Your task to perform on an android device: turn off wifi Image 0: 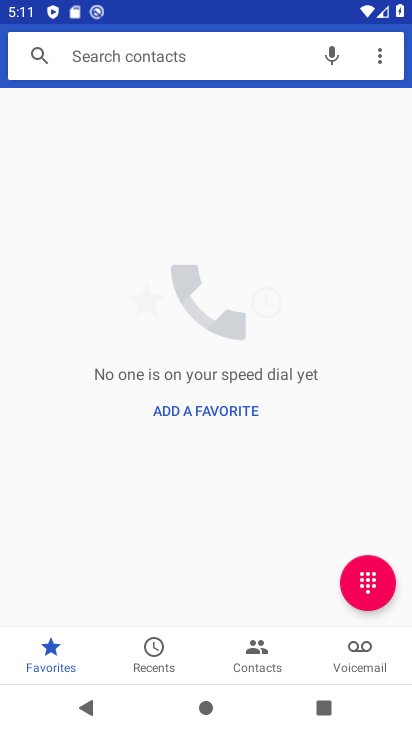
Step 0: press home button
Your task to perform on an android device: turn off wifi Image 1: 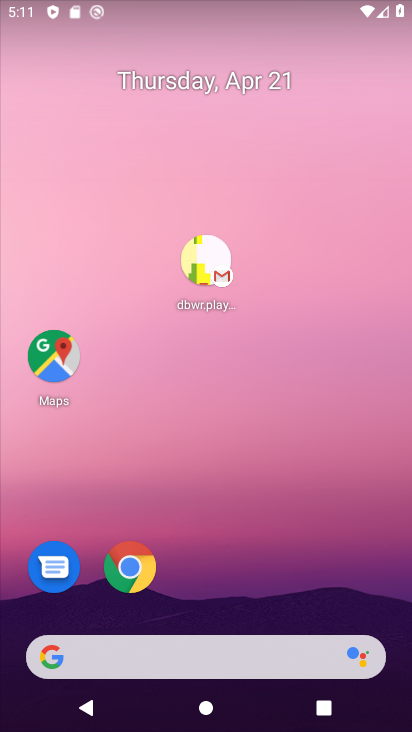
Step 1: drag from (222, 582) to (256, 1)
Your task to perform on an android device: turn off wifi Image 2: 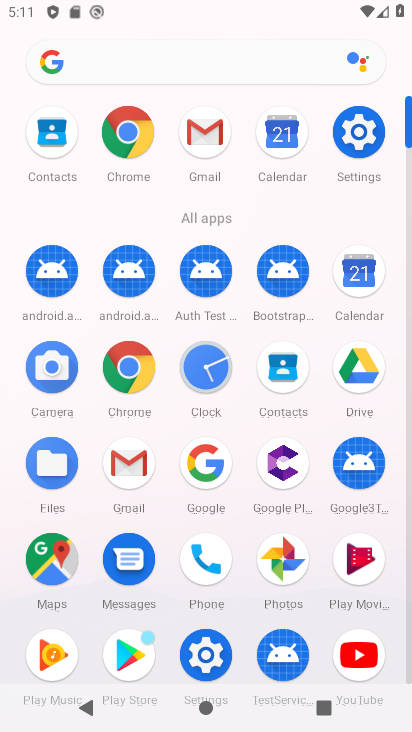
Step 2: click (362, 166)
Your task to perform on an android device: turn off wifi Image 3: 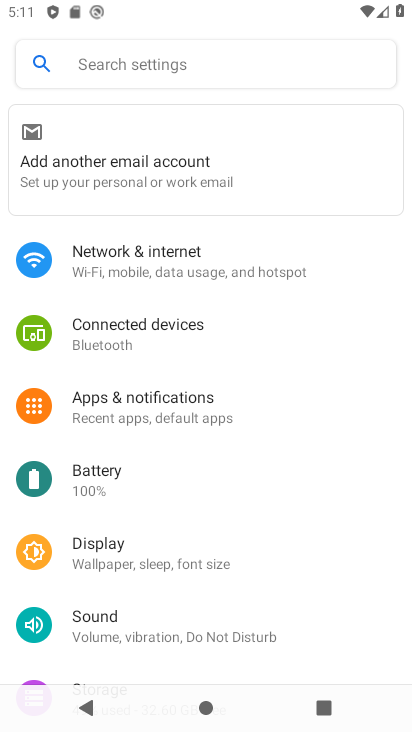
Step 3: click (116, 270)
Your task to perform on an android device: turn off wifi Image 4: 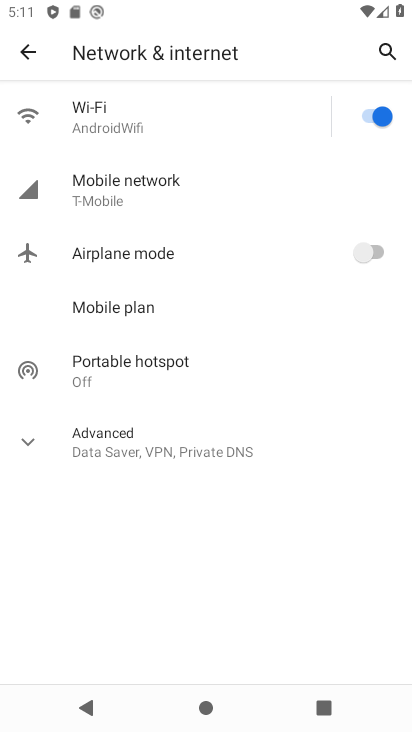
Step 4: click (356, 111)
Your task to perform on an android device: turn off wifi Image 5: 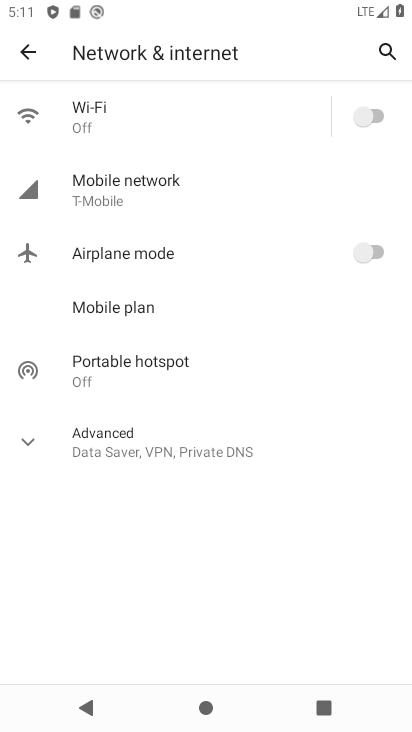
Step 5: task complete